Your task to perform on an android device: uninstall "Adobe Express: Graphic Design" Image 0: 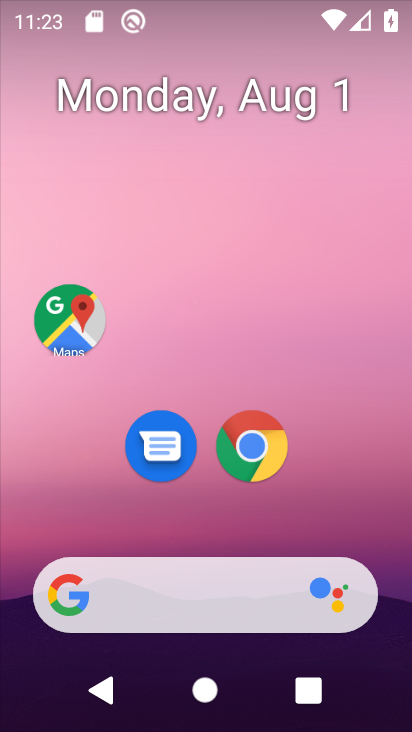
Step 0: drag from (193, 511) to (209, 141)
Your task to perform on an android device: uninstall "Adobe Express: Graphic Design" Image 1: 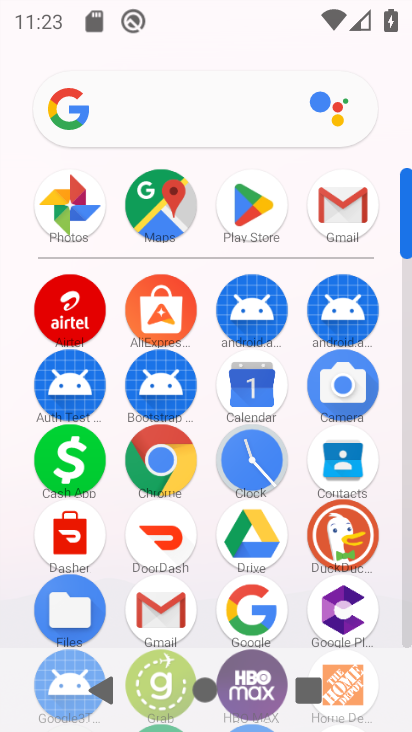
Step 1: click (253, 194)
Your task to perform on an android device: uninstall "Adobe Express: Graphic Design" Image 2: 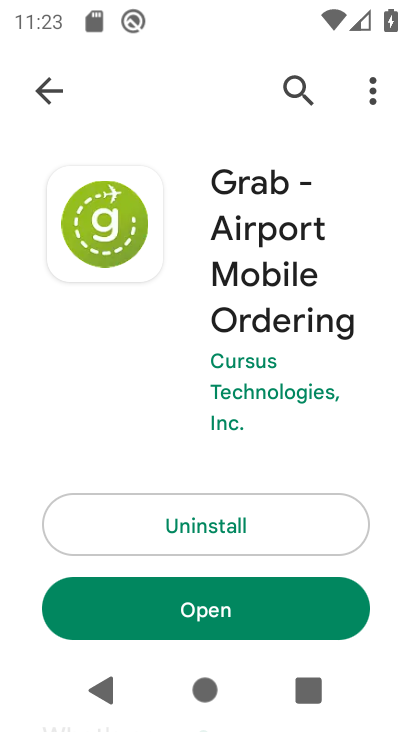
Step 2: click (304, 84)
Your task to perform on an android device: uninstall "Adobe Express: Graphic Design" Image 3: 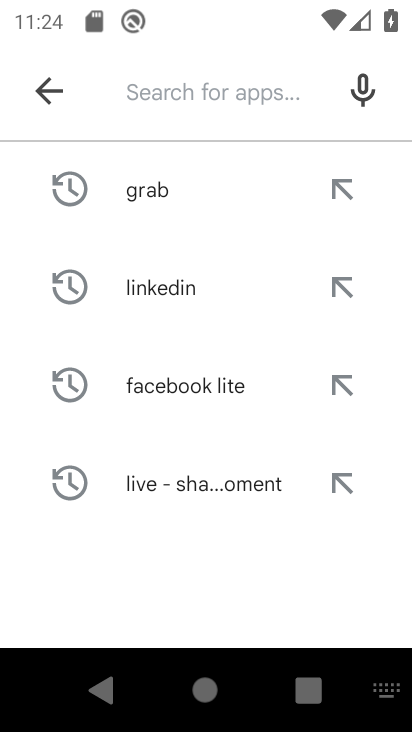
Step 3: type "Adobe Express: Graphic Design"
Your task to perform on an android device: uninstall "Adobe Express: Graphic Design" Image 4: 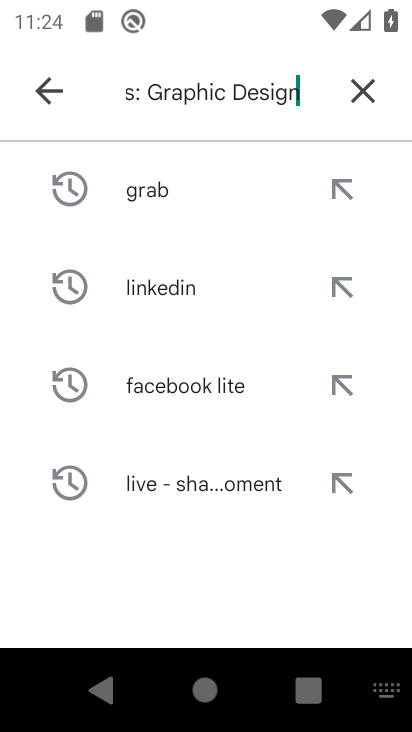
Step 4: type ""
Your task to perform on an android device: uninstall "Adobe Express: Graphic Design" Image 5: 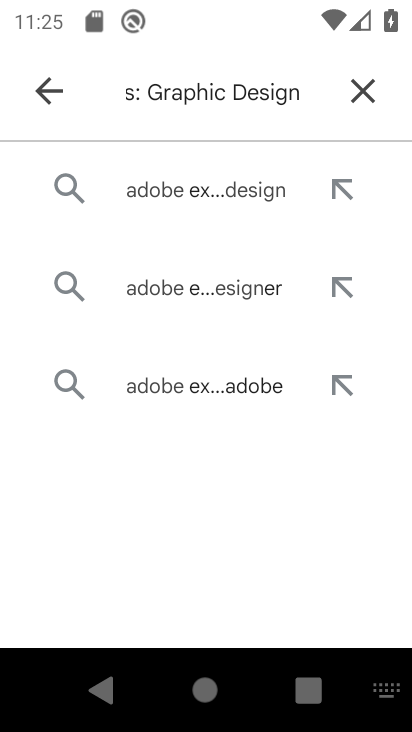
Step 5: press home button
Your task to perform on an android device: uninstall "Adobe Express: Graphic Design" Image 6: 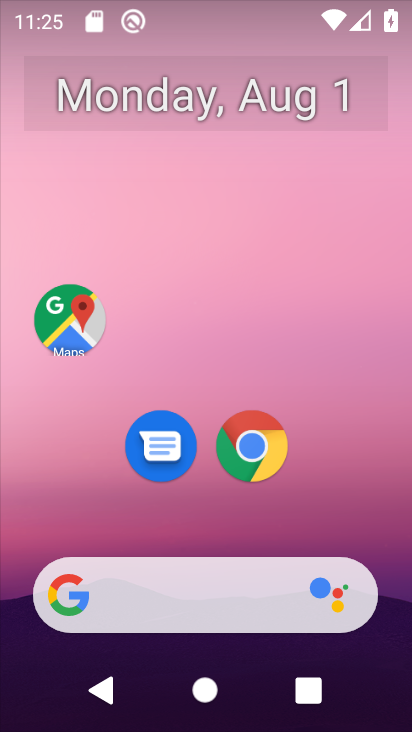
Step 6: drag from (206, 529) to (214, 154)
Your task to perform on an android device: uninstall "Adobe Express: Graphic Design" Image 7: 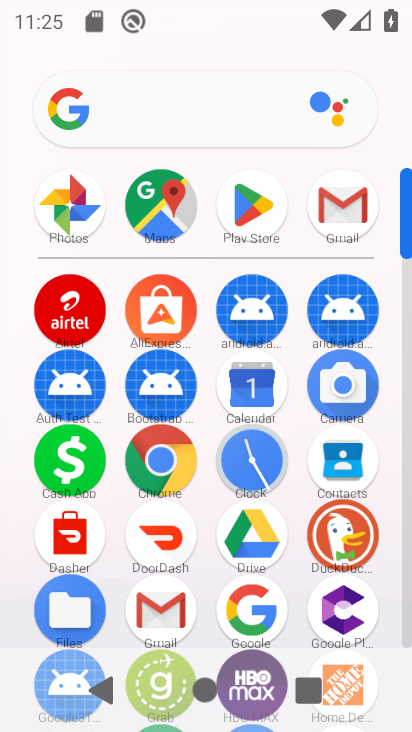
Step 7: click (244, 216)
Your task to perform on an android device: uninstall "Adobe Express: Graphic Design" Image 8: 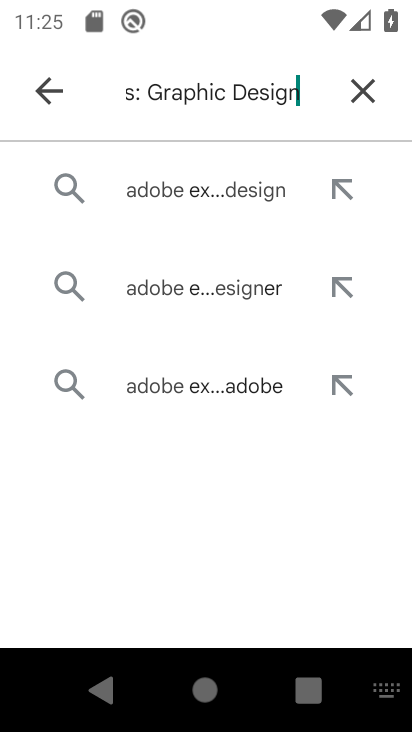
Step 8: click (268, 196)
Your task to perform on an android device: uninstall "Adobe Express: Graphic Design" Image 9: 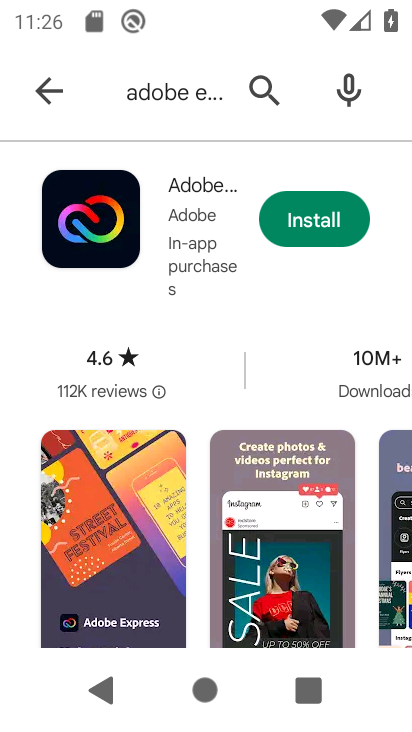
Step 9: click (179, 205)
Your task to perform on an android device: uninstall "Adobe Express: Graphic Design" Image 10: 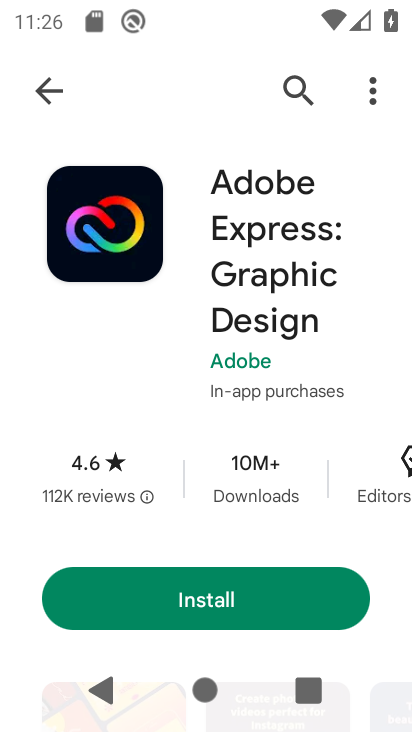
Step 10: task complete